Your task to perform on an android device: check battery use Image 0: 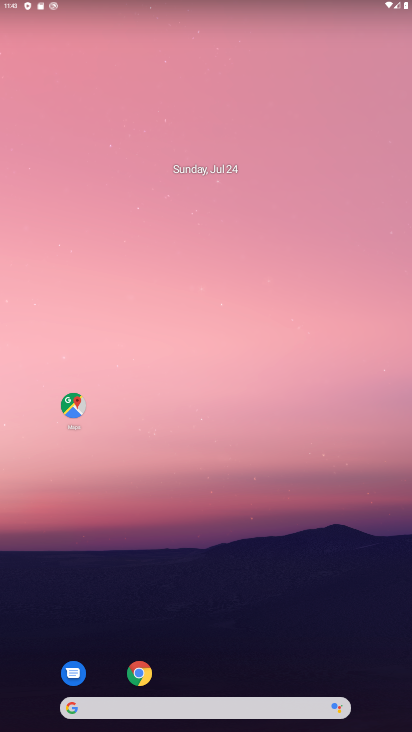
Step 0: drag from (110, 690) to (274, 42)
Your task to perform on an android device: check battery use Image 1: 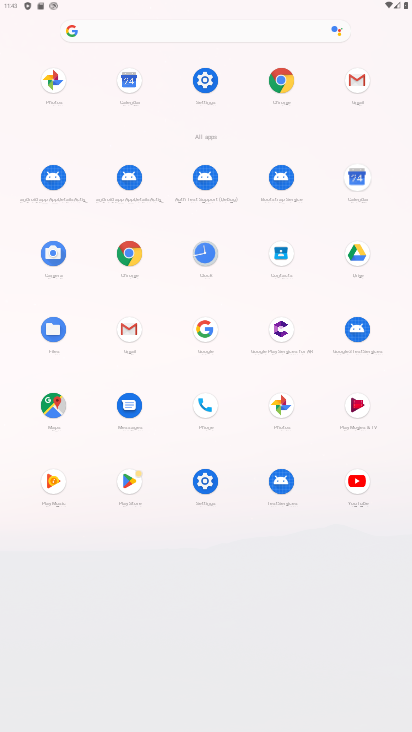
Step 1: click (203, 61)
Your task to perform on an android device: check battery use Image 2: 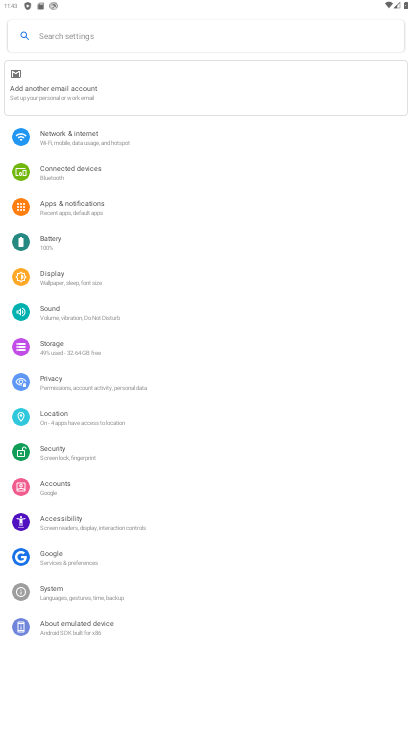
Step 2: click (67, 243)
Your task to perform on an android device: check battery use Image 3: 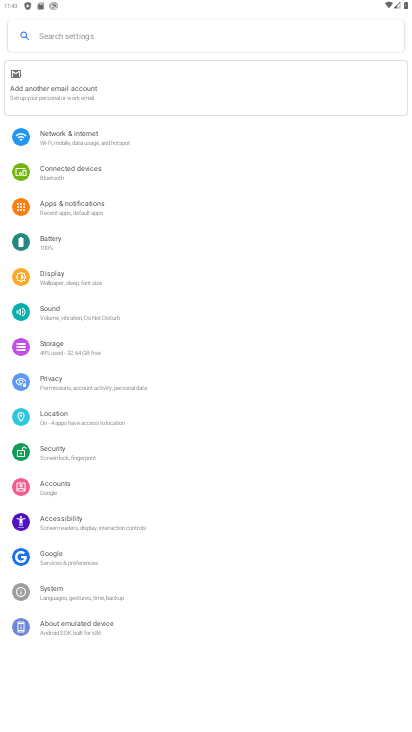
Step 3: click (67, 243)
Your task to perform on an android device: check battery use Image 4: 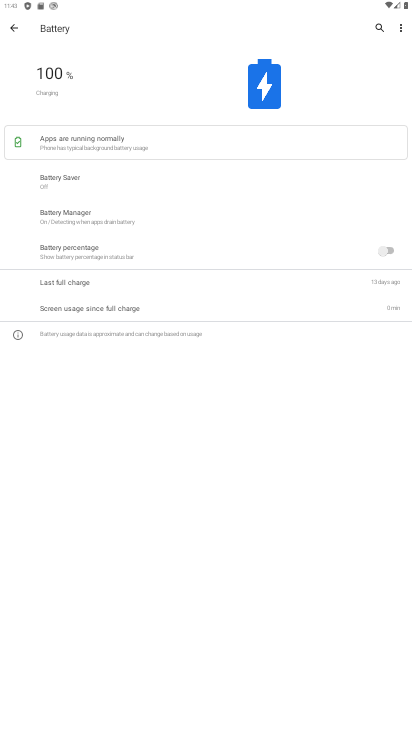
Step 4: task complete